Your task to perform on an android device: open device folders in google photos Image 0: 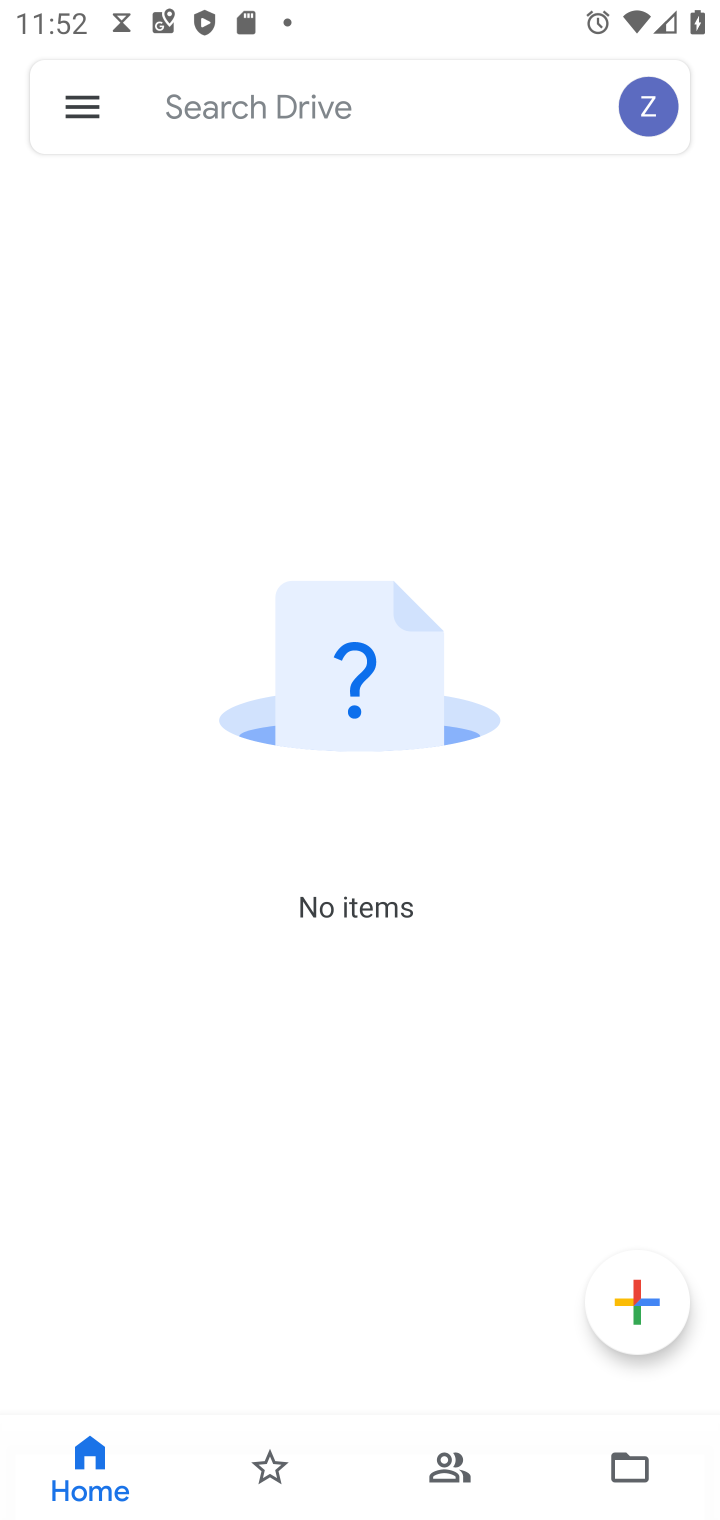
Step 0: press home button
Your task to perform on an android device: open device folders in google photos Image 1: 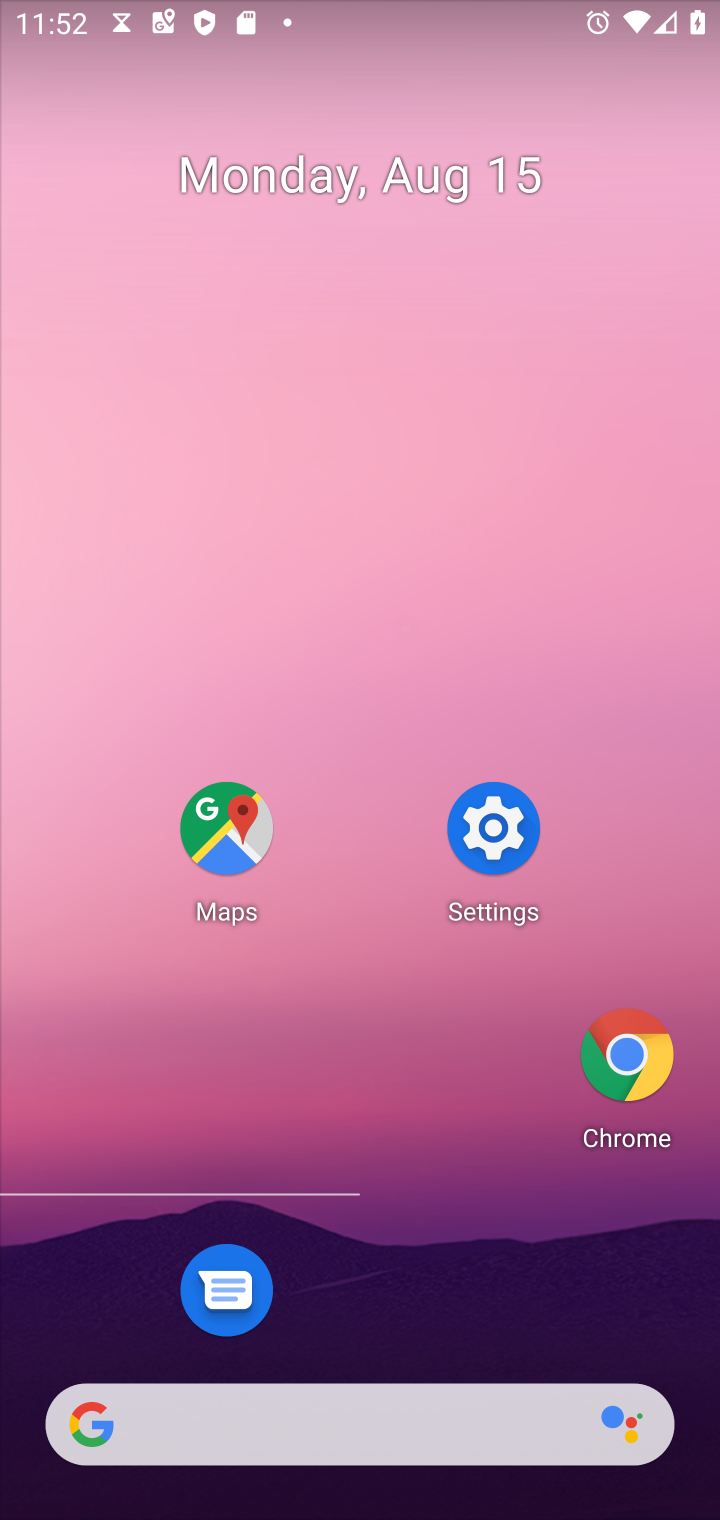
Step 1: drag from (355, 1410) to (586, 509)
Your task to perform on an android device: open device folders in google photos Image 2: 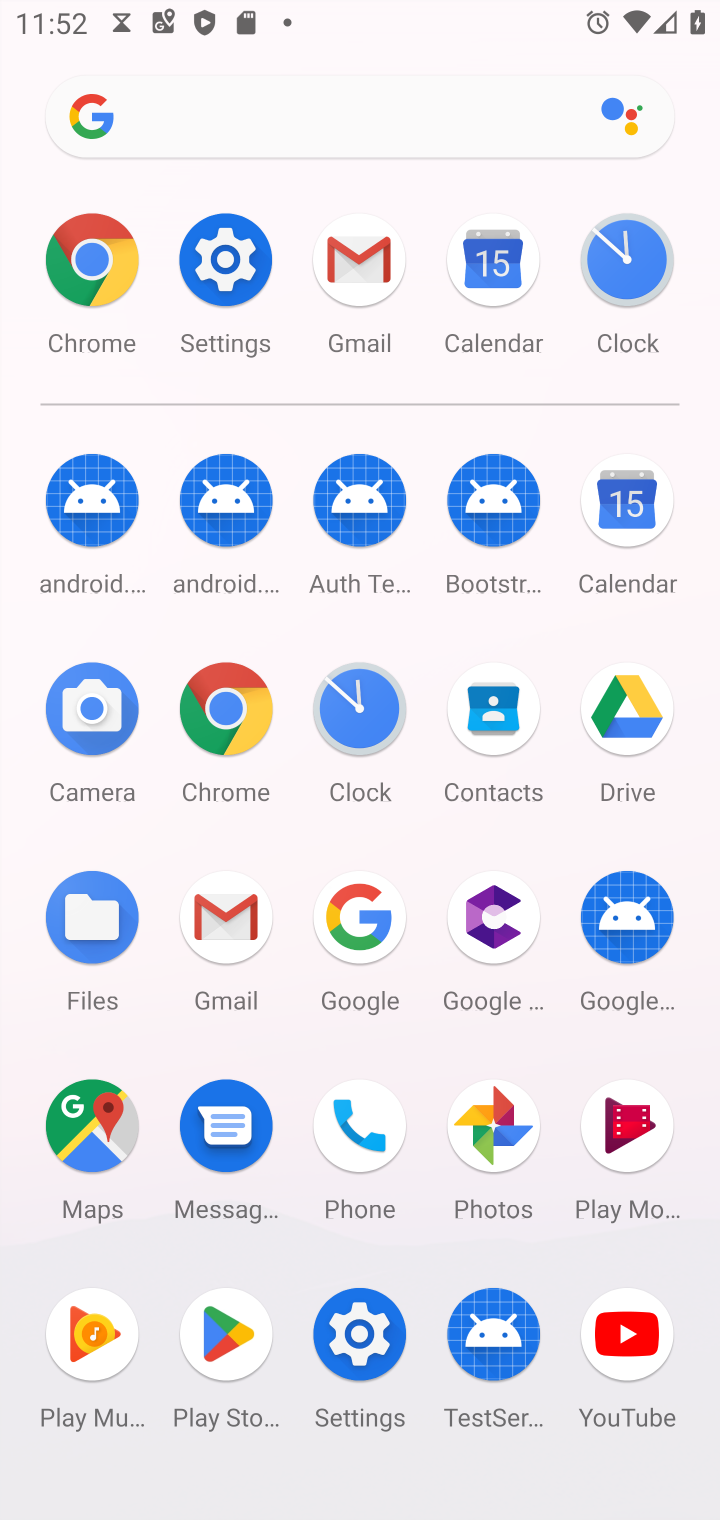
Step 2: click (500, 1132)
Your task to perform on an android device: open device folders in google photos Image 3: 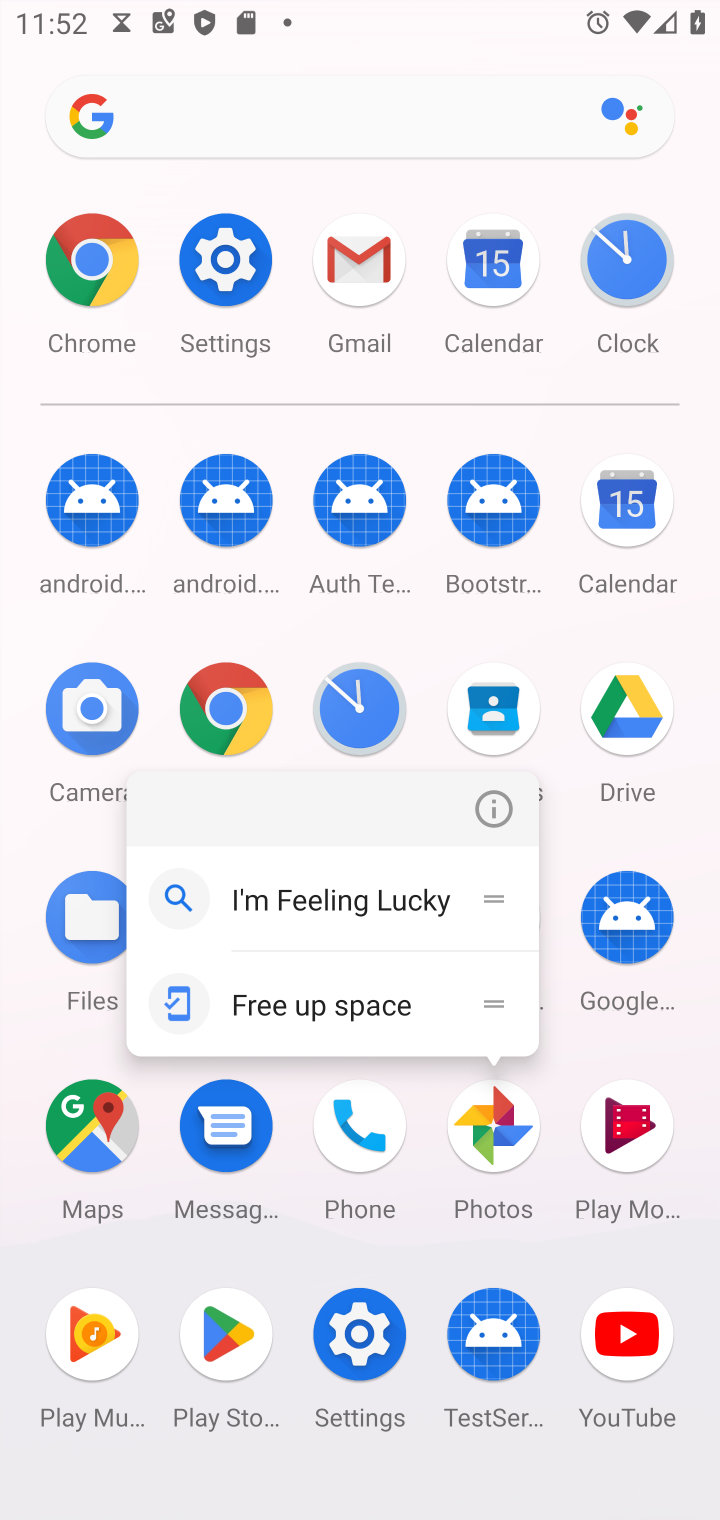
Step 3: click (500, 1132)
Your task to perform on an android device: open device folders in google photos Image 4: 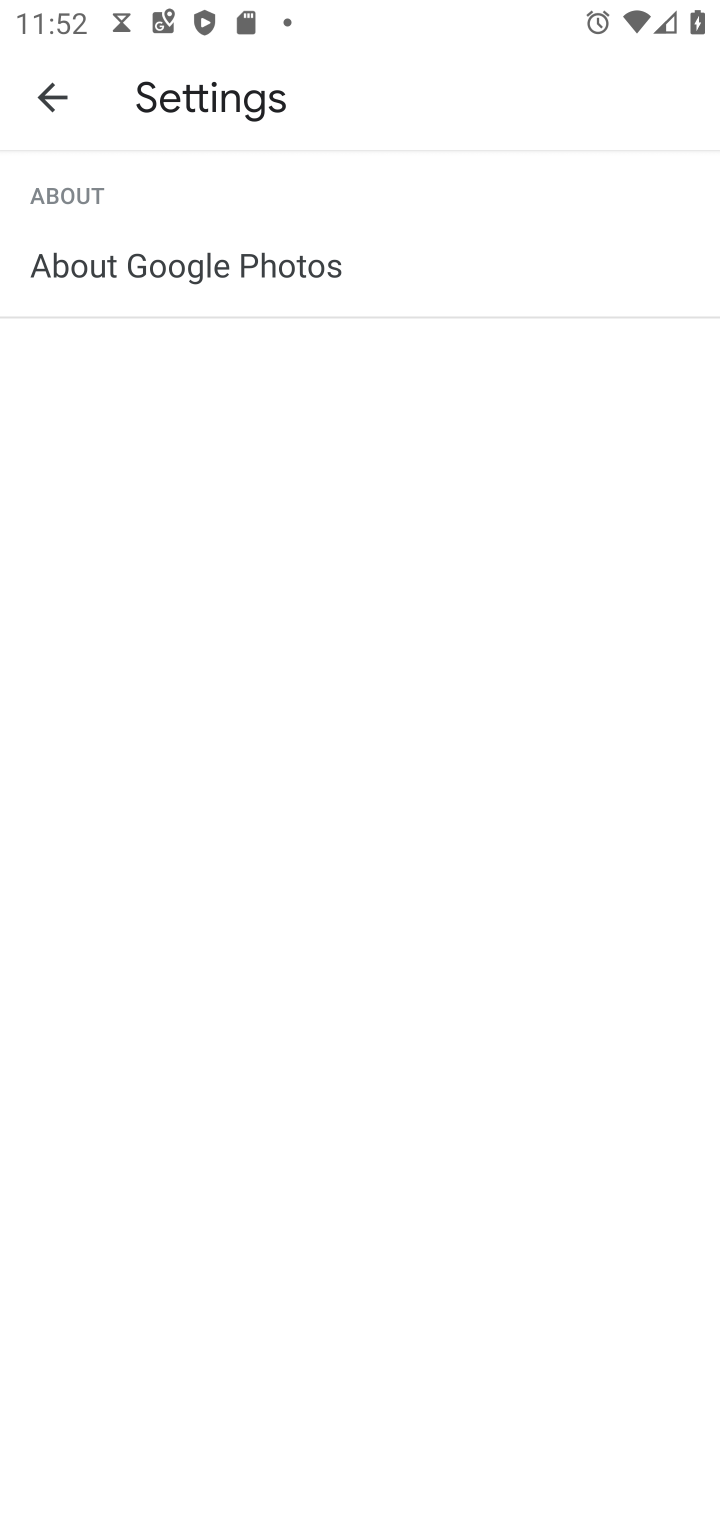
Step 4: click (63, 84)
Your task to perform on an android device: open device folders in google photos Image 5: 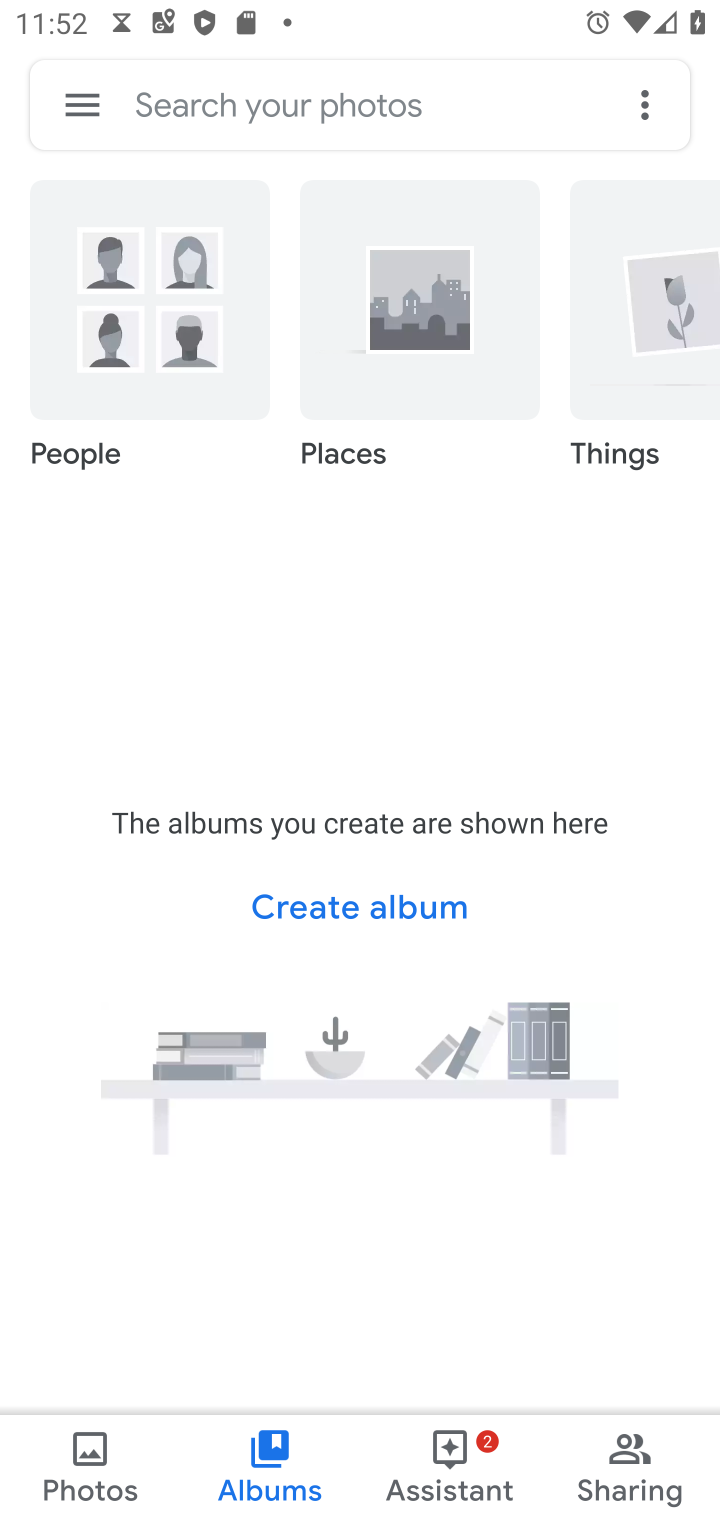
Step 5: click (83, 111)
Your task to perform on an android device: open device folders in google photos Image 6: 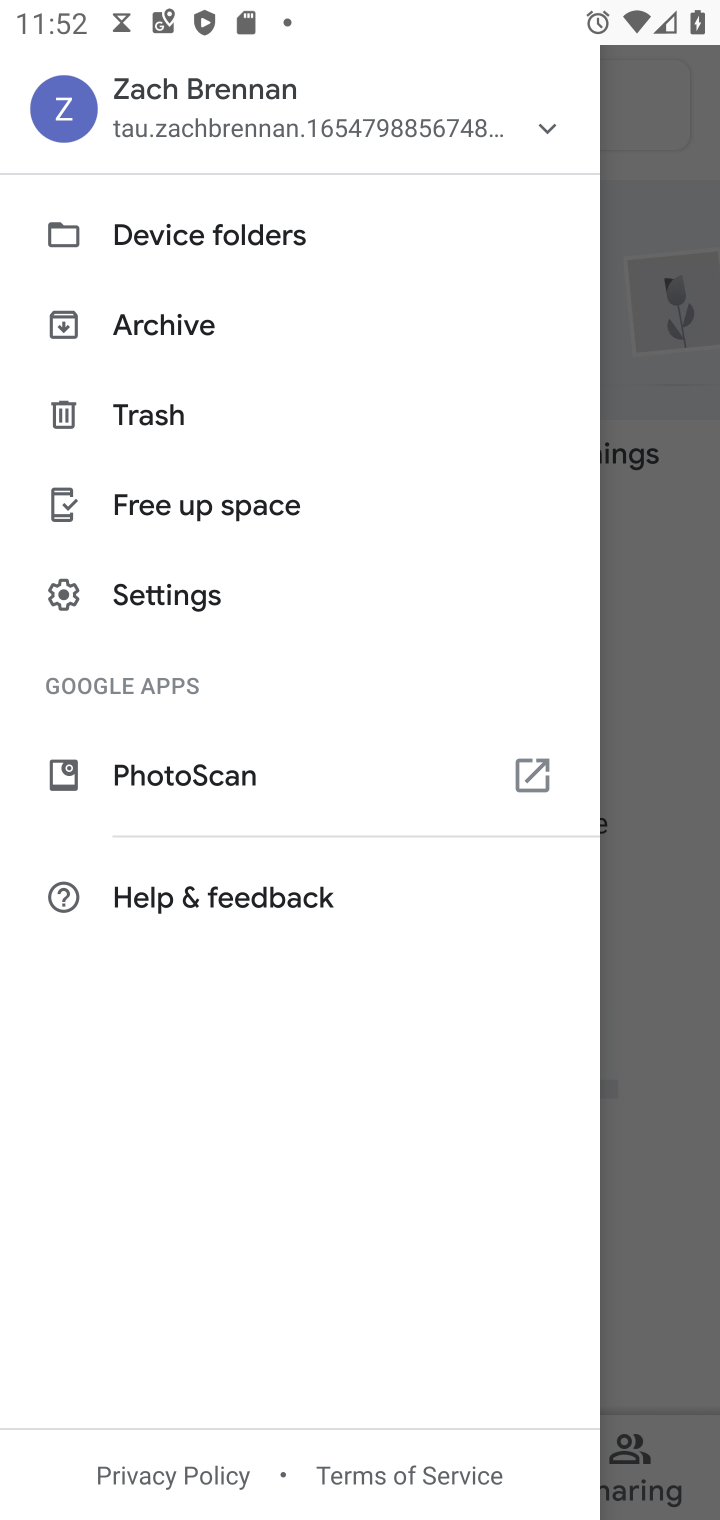
Step 6: click (182, 245)
Your task to perform on an android device: open device folders in google photos Image 7: 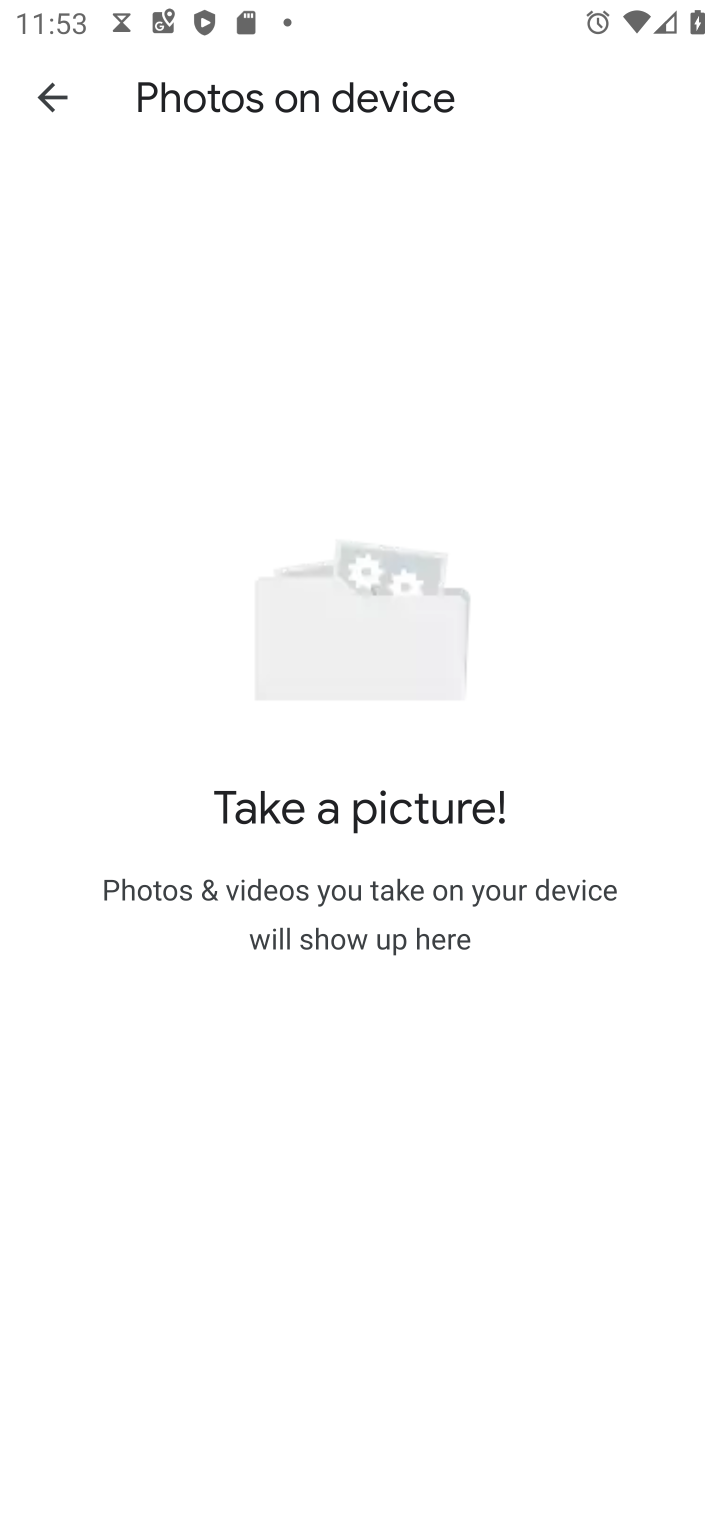
Step 7: task complete